Your task to perform on an android device: read, delete, or share a saved page in the chrome app Image 0: 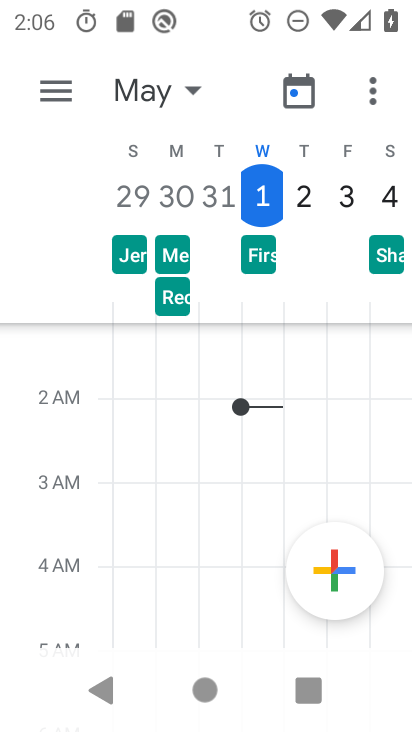
Step 0: press home button
Your task to perform on an android device: read, delete, or share a saved page in the chrome app Image 1: 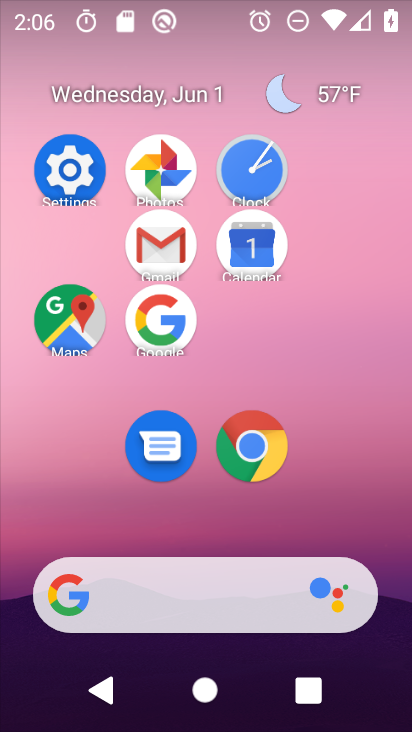
Step 1: click (269, 429)
Your task to perform on an android device: read, delete, or share a saved page in the chrome app Image 2: 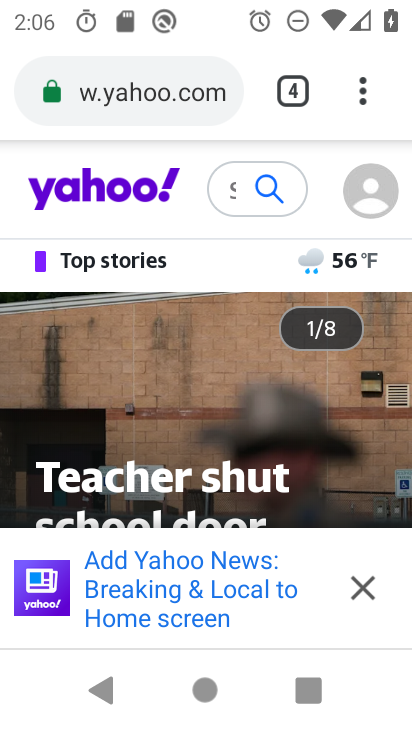
Step 2: click (375, 81)
Your task to perform on an android device: read, delete, or share a saved page in the chrome app Image 3: 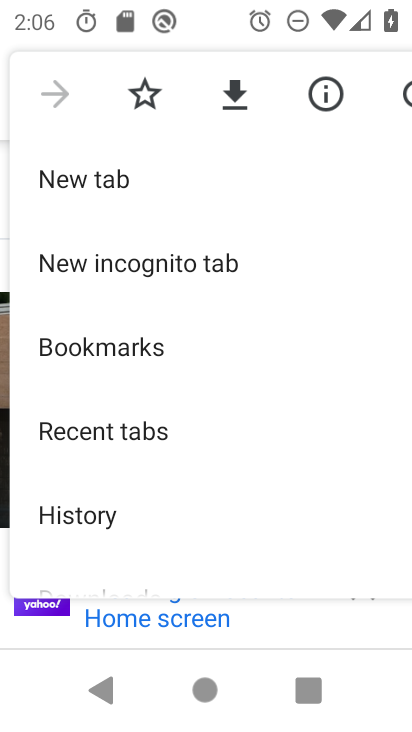
Step 3: drag from (214, 489) to (222, 183)
Your task to perform on an android device: read, delete, or share a saved page in the chrome app Image 4: 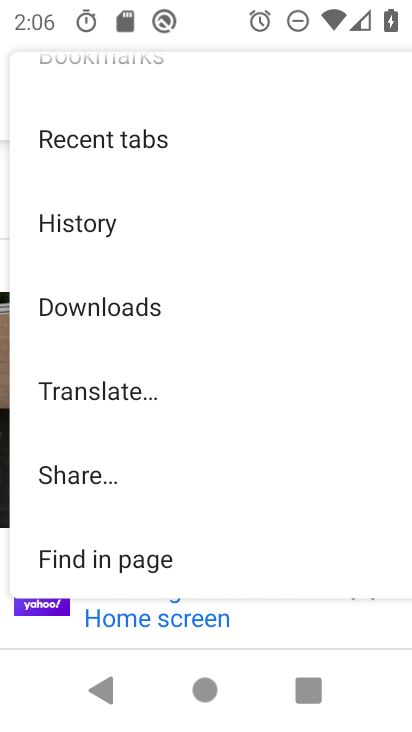
Step 4: click (199, 299)
Your task to perform on an android device: read, delete, or share a saved page in the chrome app Image 5: 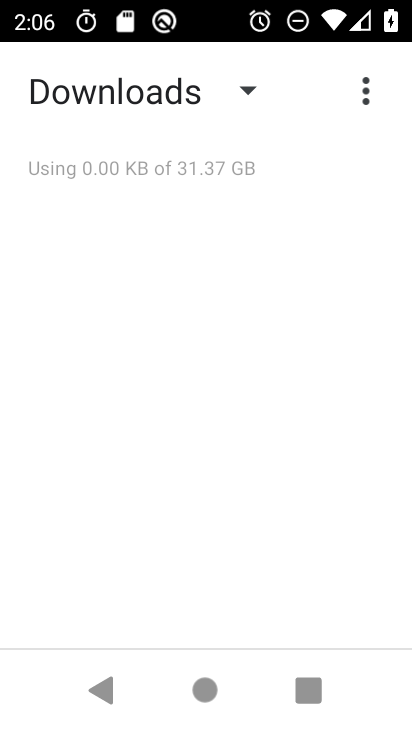
Step 5: task complete